Your task to perform on an android device: Go to Wikipedia Image 0: 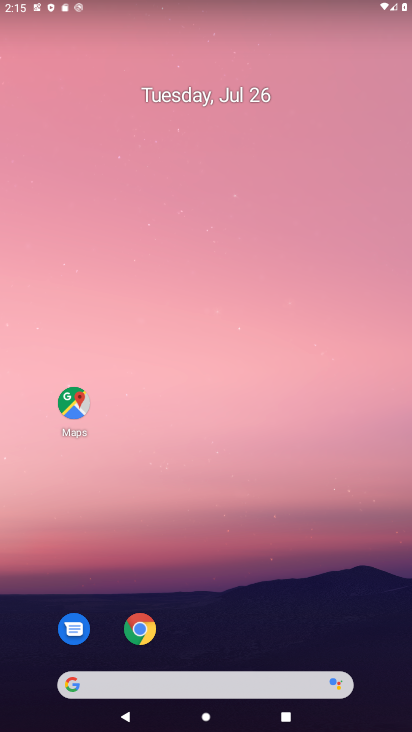
Step 0: click (145, 624)
Your task to perform on an android device: Go to Wikipedia Image 1: 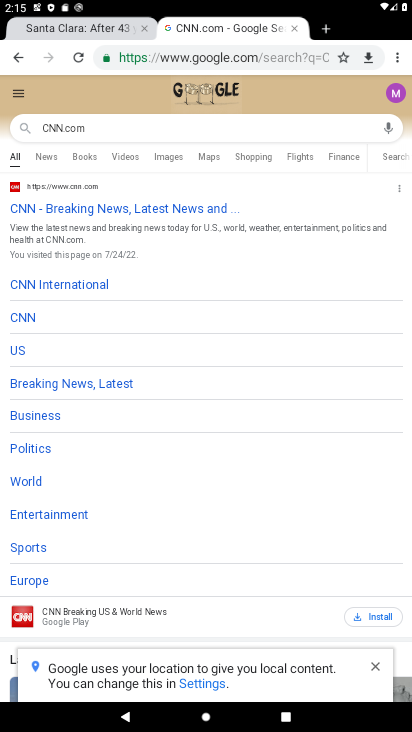
Step 1: click (320, 31)
Your task to perform on an android device: Go to Wikipedia Image 2: 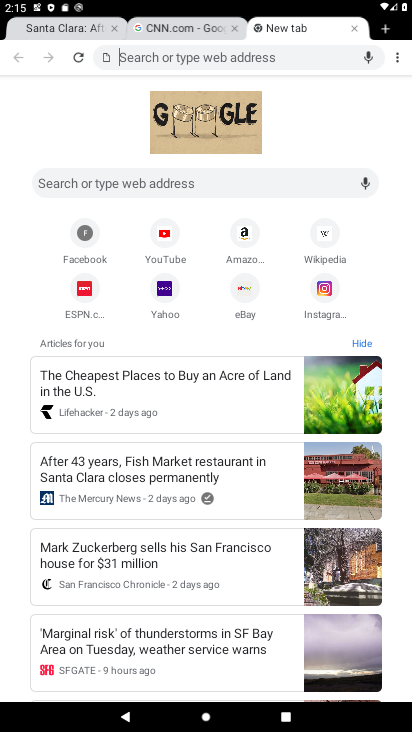
Step 2: click (328, 228)
Your task to perform on an android device: Go to Wikipedia Image 3: 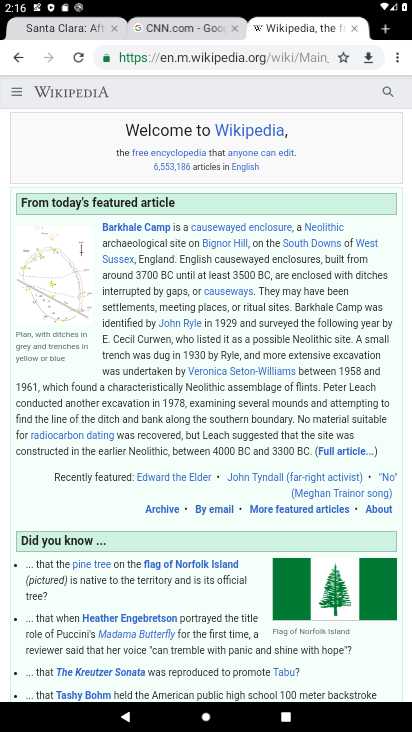
Step 3: task complete